Your task to perform on an android device: check android version Image 0: 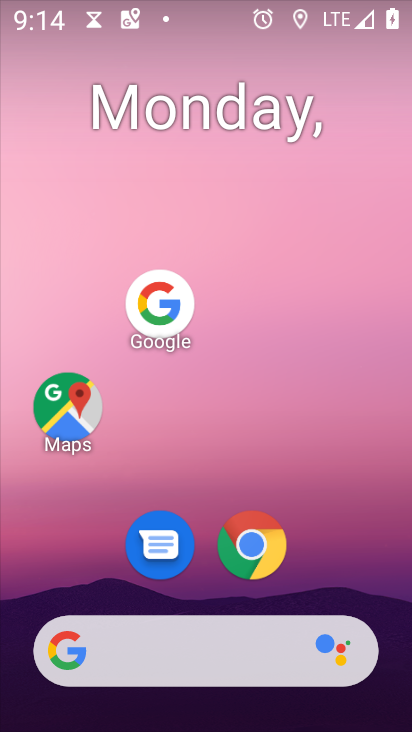
Step 0: press home button
Your task to perform on an android device: check android version Image 1: 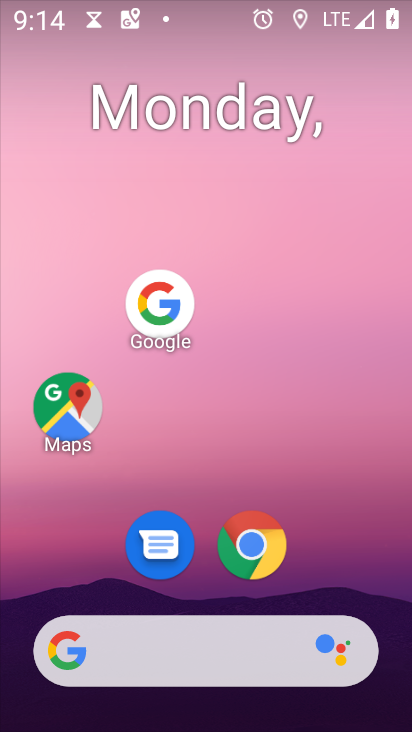
Step 1: drag from (193, 649) to (344, 73)
Your task to perform on an android device: check android version Image 2: 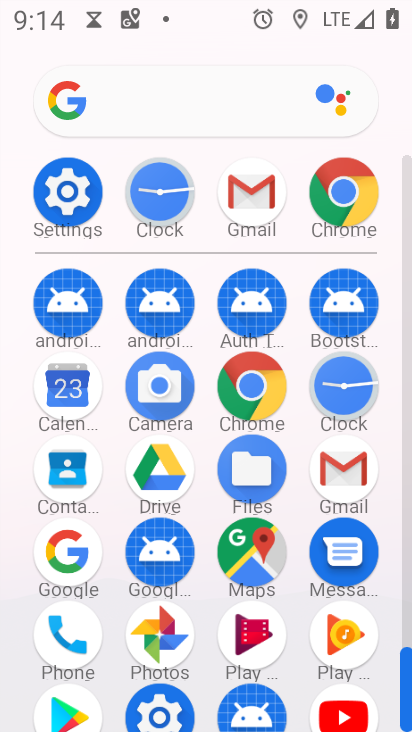
Step 2: click (79, 207)
Your task to perform on an android device: check android version Image 3: 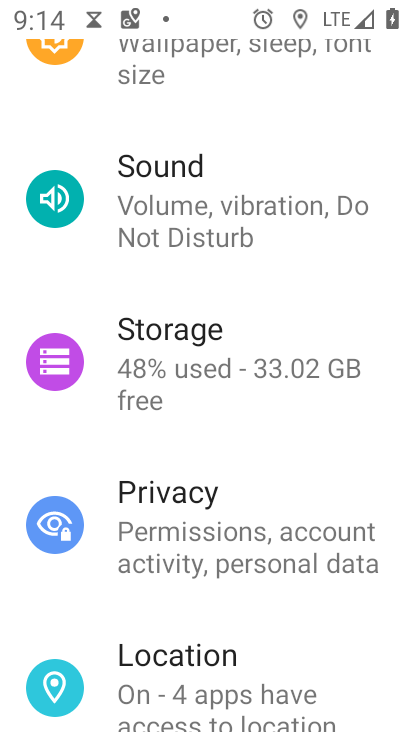
Step 3: drag from (270, 672) to (372, 117)
Your task to perform on an android device: check android version Image 4: 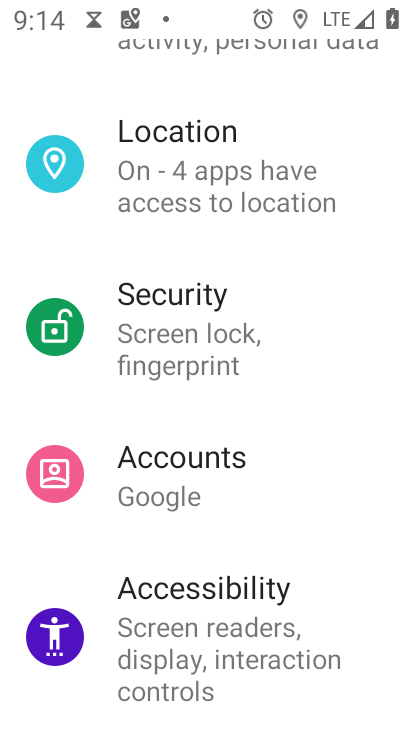
Step 4: drag from (286, 646) to (333, 153)
Your task to perform on an android device: check android version Image 5: 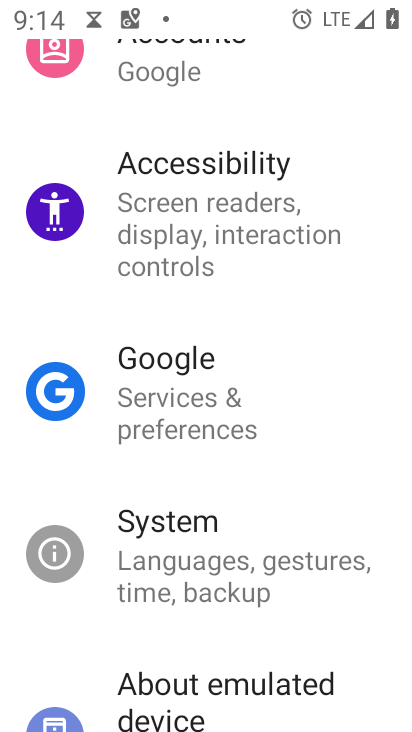
Step 5: drag from (261, 657) to (333, 239)
Your task to perform on an android device: check android version Image 6: 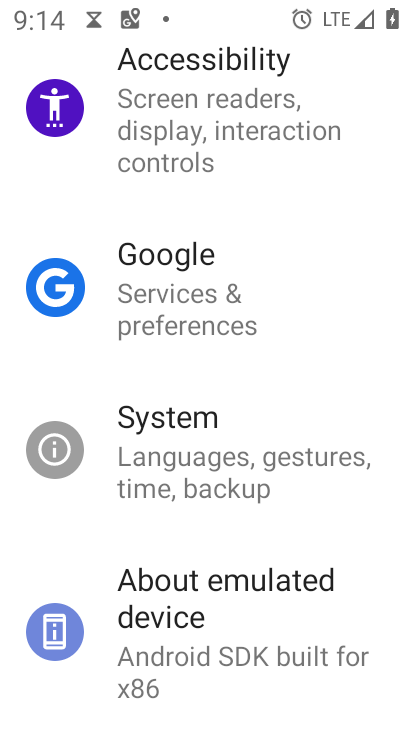
Step 6: click (258, 608)
Your task to perform on an android device: check android version Image 7: 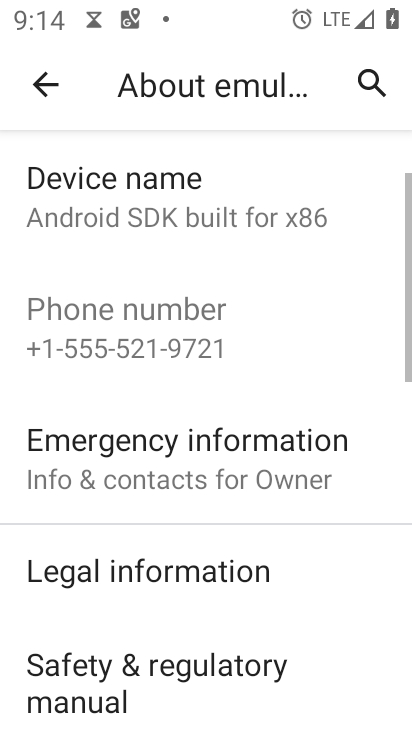
Step 7: drag from (203, 583) to (285, 320)
Your task to perform on an android device: check android version Image 8: 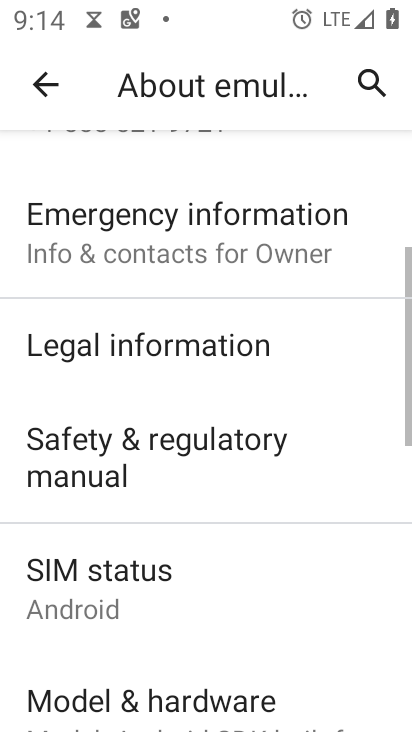
Step 8: drag from (253, 473) to (261, 166)
Your task to perform on an android device: check android version Image 9: 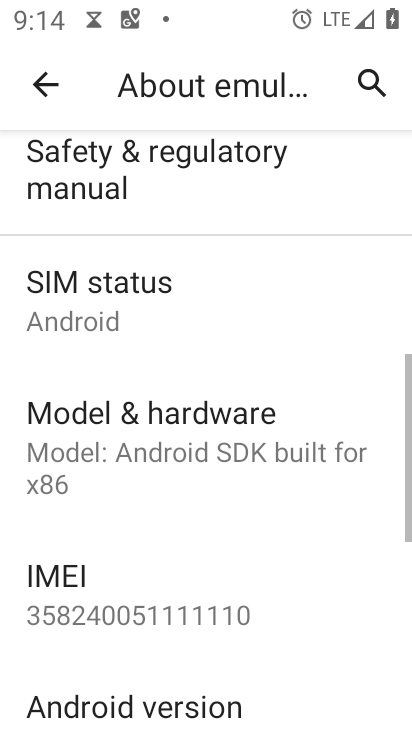
Step 9: drag from (193, 604) to (317, 274)
Your task to perform on an android device: check android version Image 10: 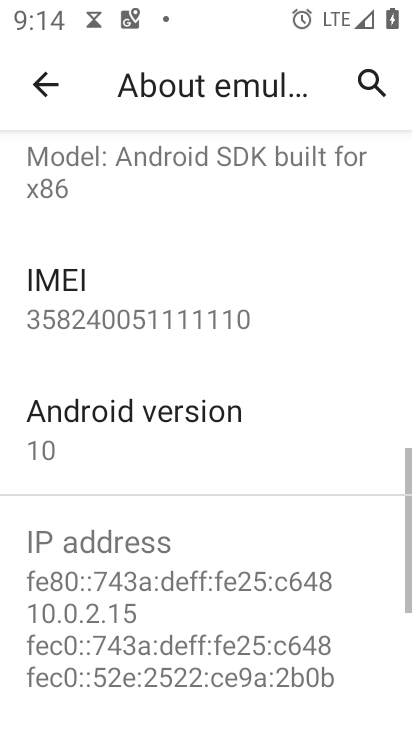
Step 10: click (184, 418)
Your task to perform on an android device: check android version Image 11: 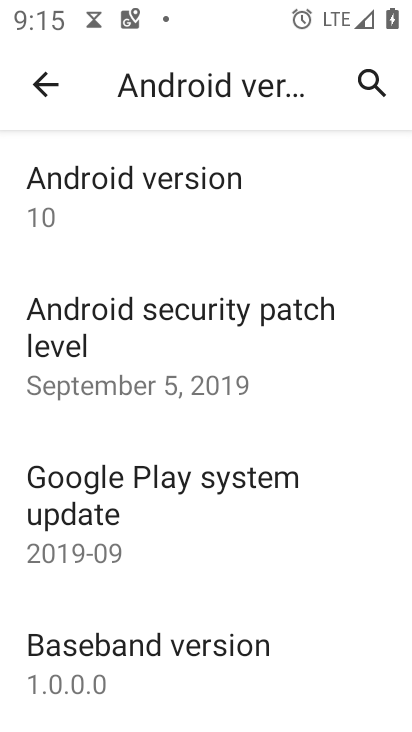
Step 11: task complete